Your task to perform on an android device: toggle location history Image 0: 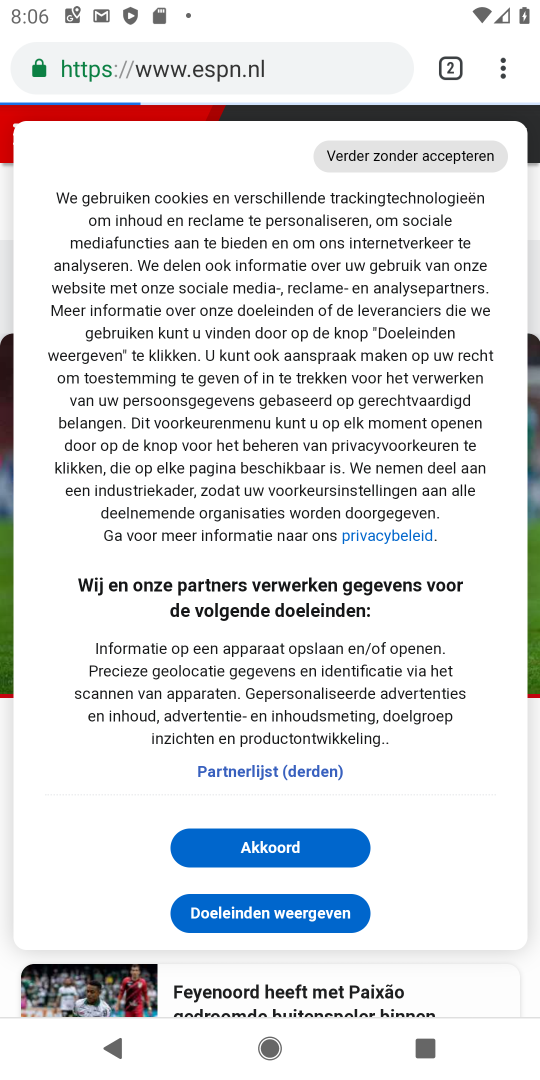
Step 0: press home button
Your task to perform on an android device: toggle location history Image 1: 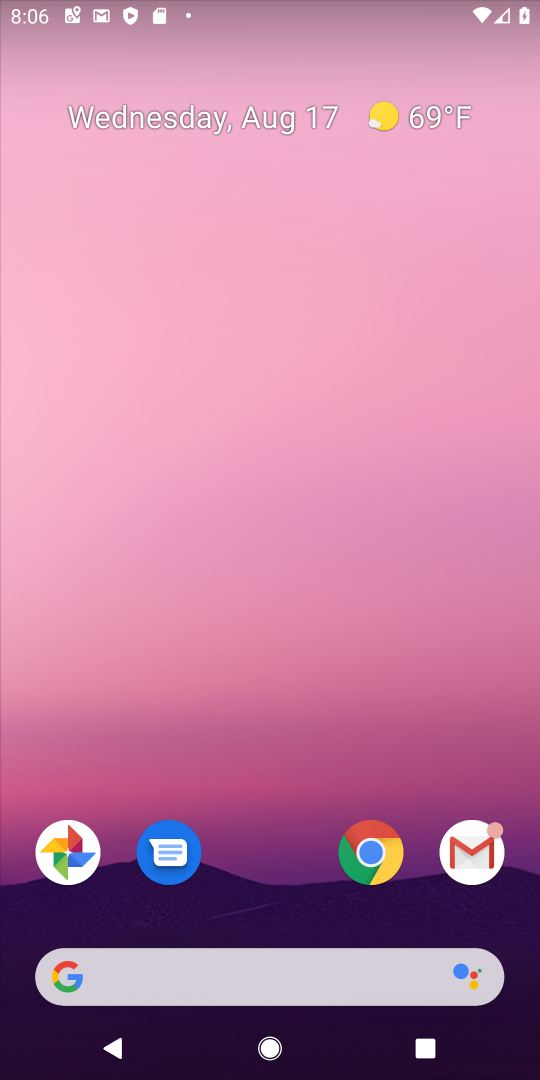
Step 1: drag from (482, 677) to (1, 543)
Your task to perform on an android device: toggle location history Image 2: 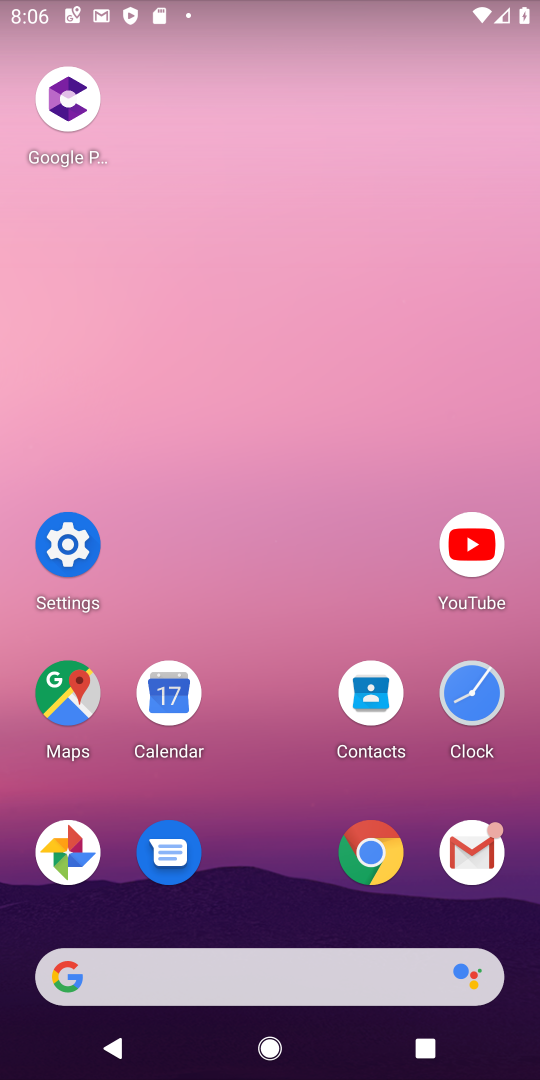
Step 2: click (67, 696)
Your task to perform on an android device: toggle location history Image 3: 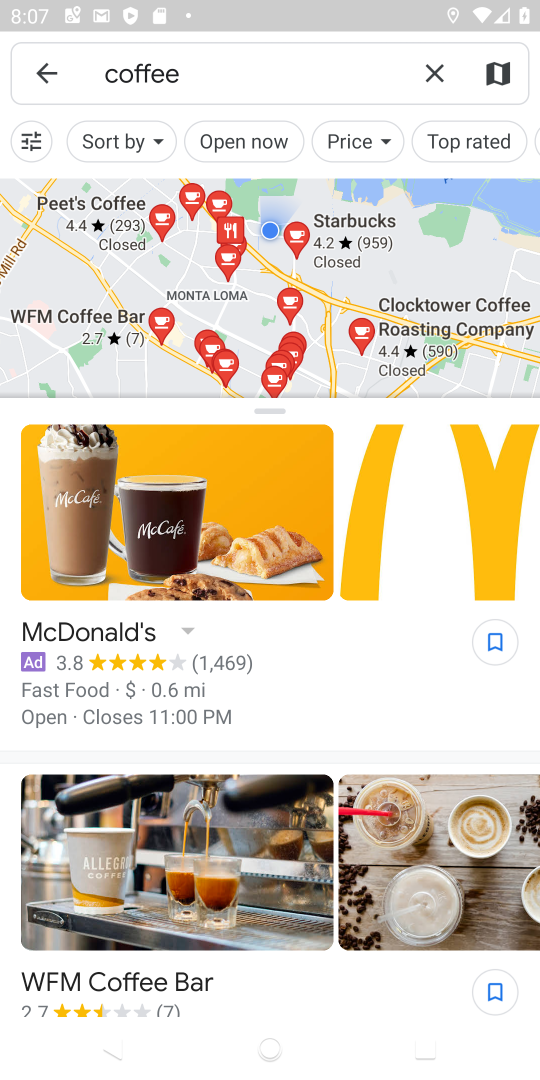
Step 3: click (45, 71)
Your task to perform on an android device: toggle location history Image 4: 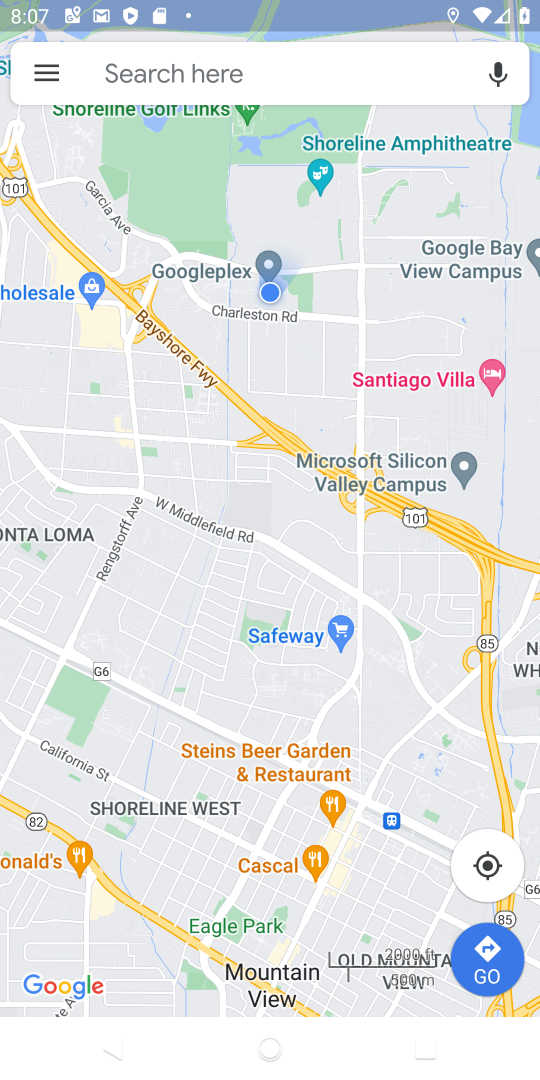
Step 4: click (45, 71)
Your task to perform on an android device: toggle location history Image 5: 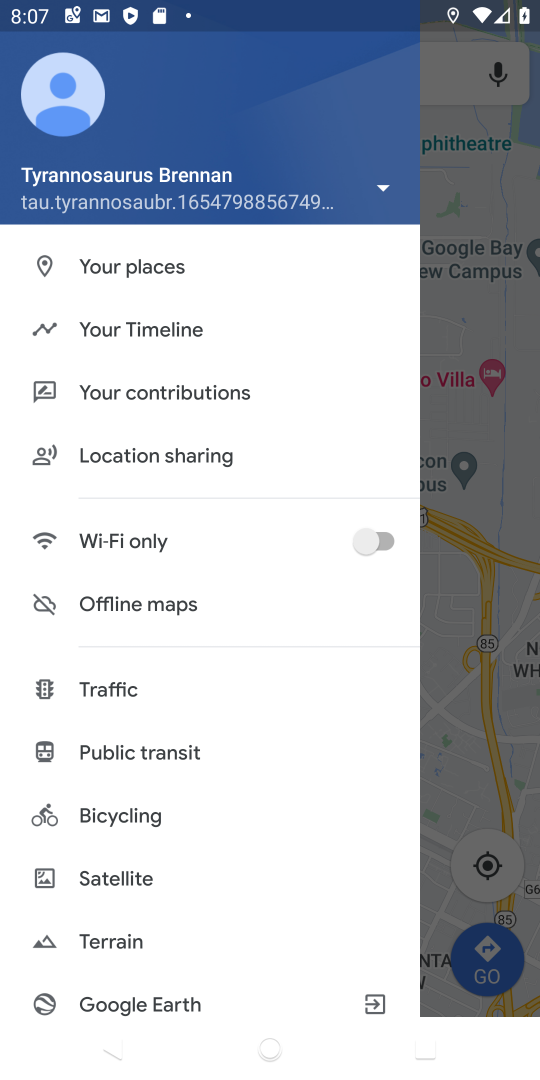
Step 5: click (141, 324)
Your task to perform on an android device: toggle location history Image 6: 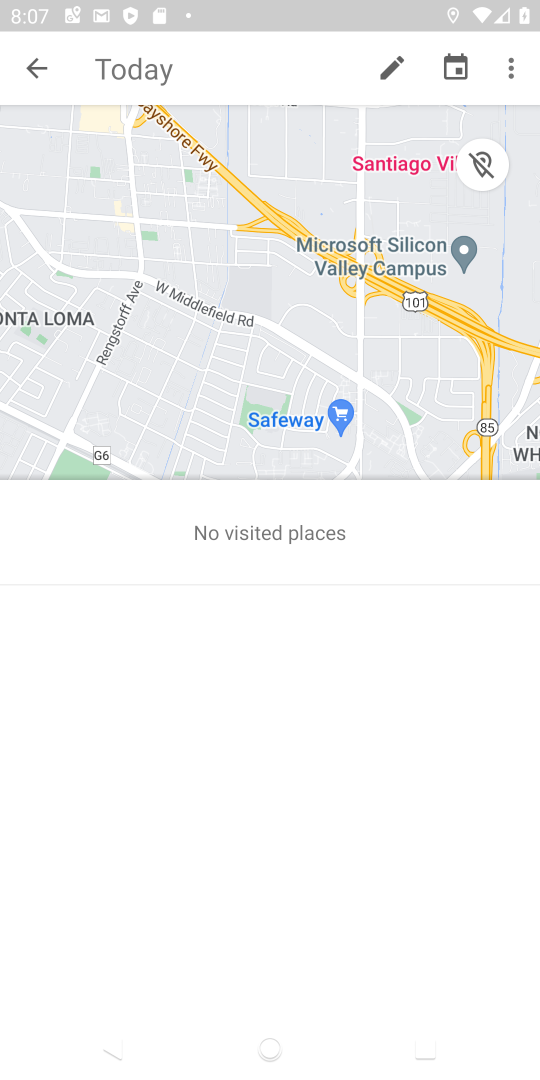
Step 6: click (506, 67)
Your task to perform on an android device: toggle location history Image 7: 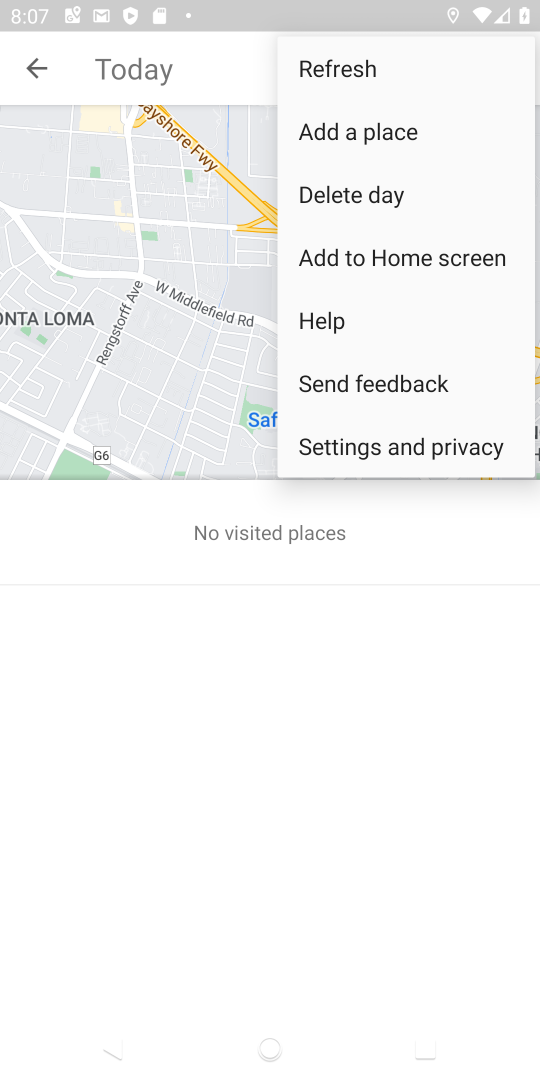
Step 7: click (404, 445)
Your task to perform on an android device: toggle location history Image 8: 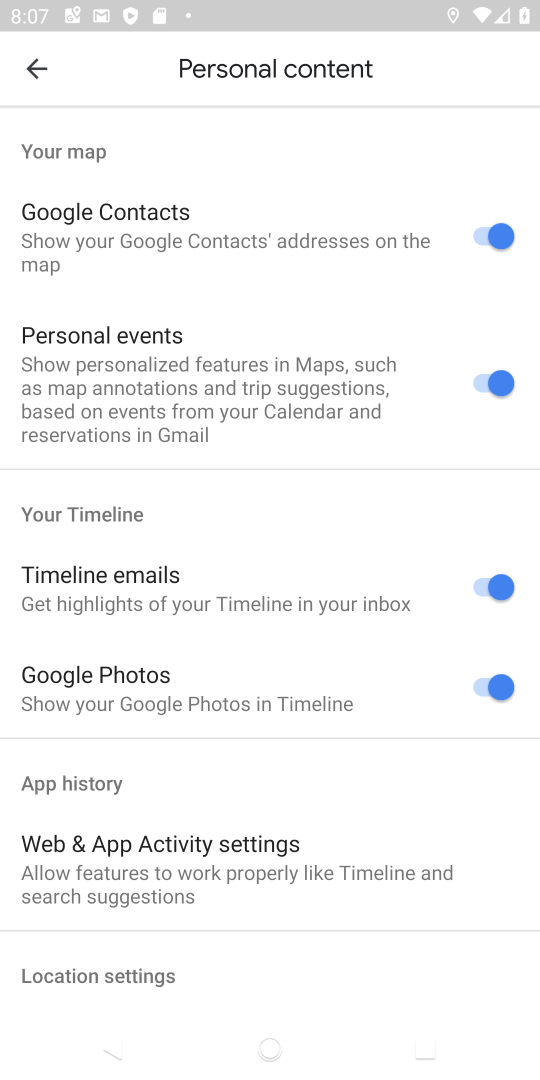
Step 8: drag from (331, 924) to (230, 508)
Your task to perform on an android device: toggle location history Image 9: 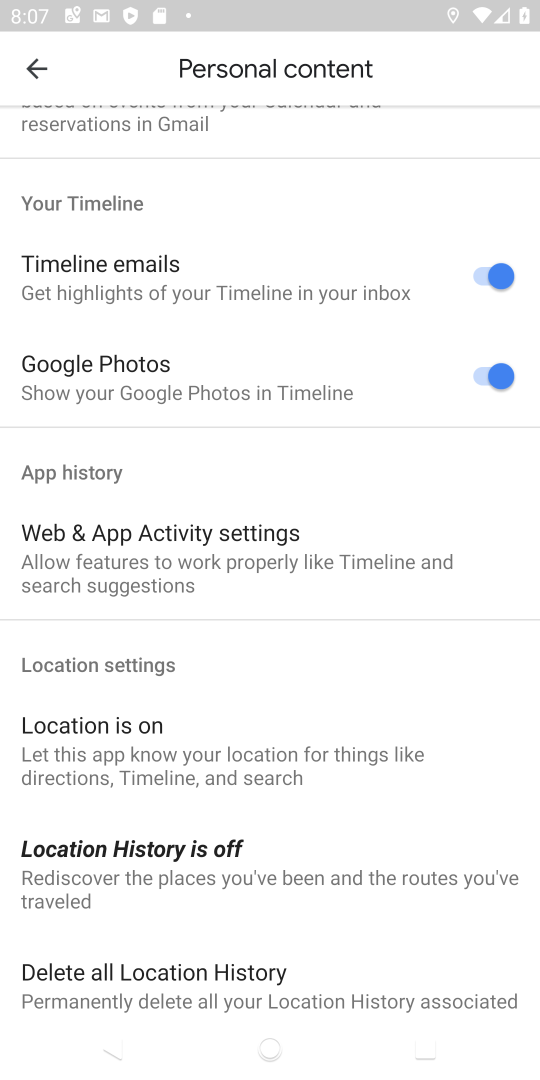
Step 9: drag from (307, 908) to (269, 662)
Your task to perform on an android device: toggle location history Image 10: 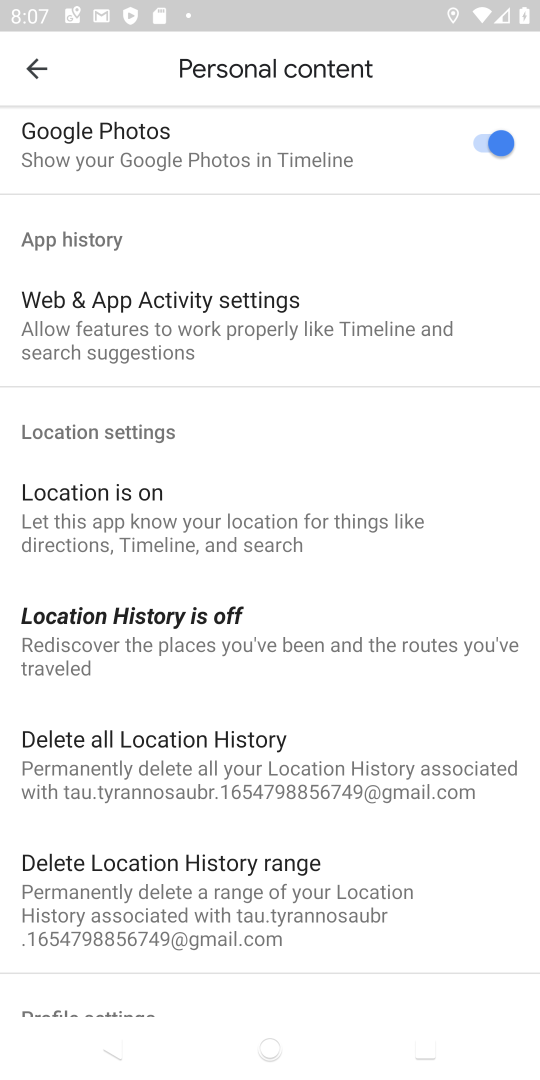
Step 10: click (123, 621)
Your task to perform on an android device: toggle location history Image 11: 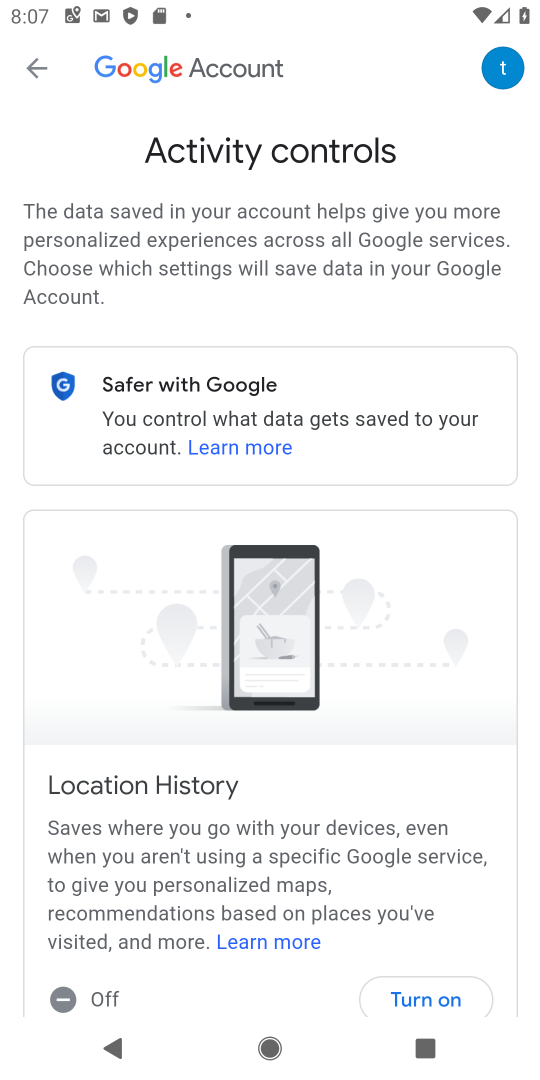
Step 11: drag from (314, 895) to (276, 610)
Your task to perform on an android device: toggle location history Image 12: 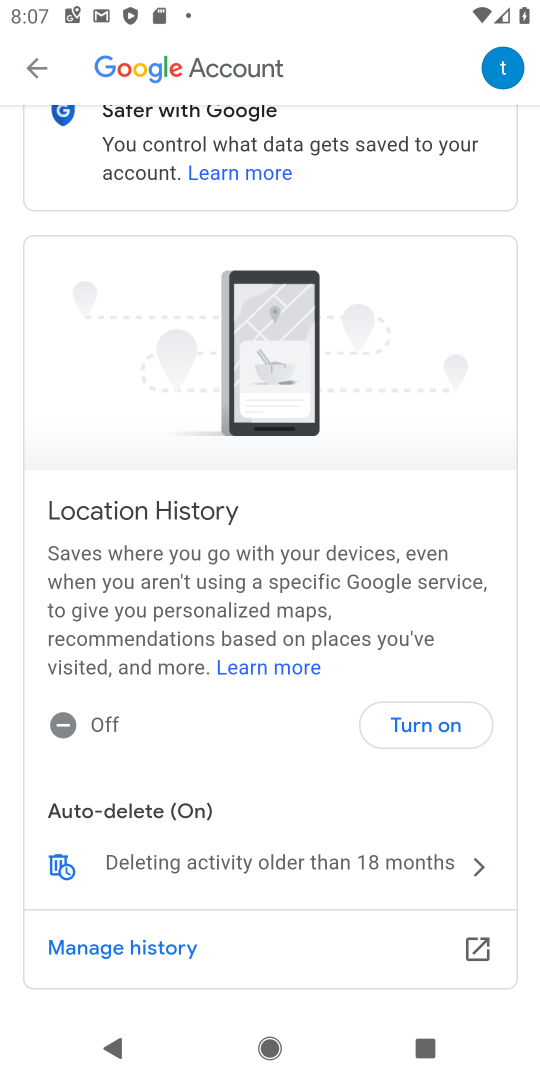
Step 12: click (426, 720)
Your task to perform on an android device: toggle location history Image 13: 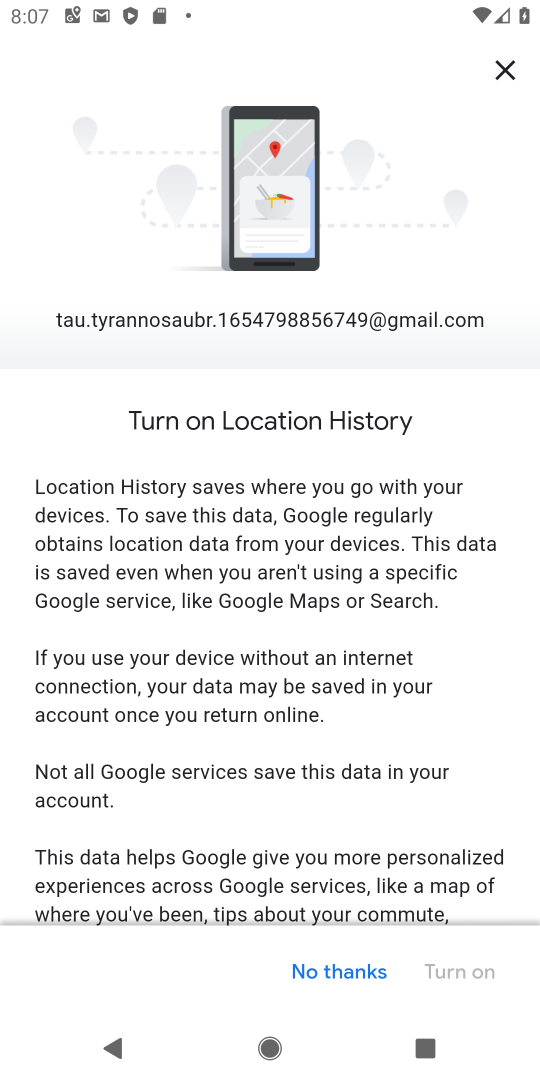
Step 13: drag from (372, 827) to (306, 464)
Your task to perform on an android device: toggle location history Image 14: 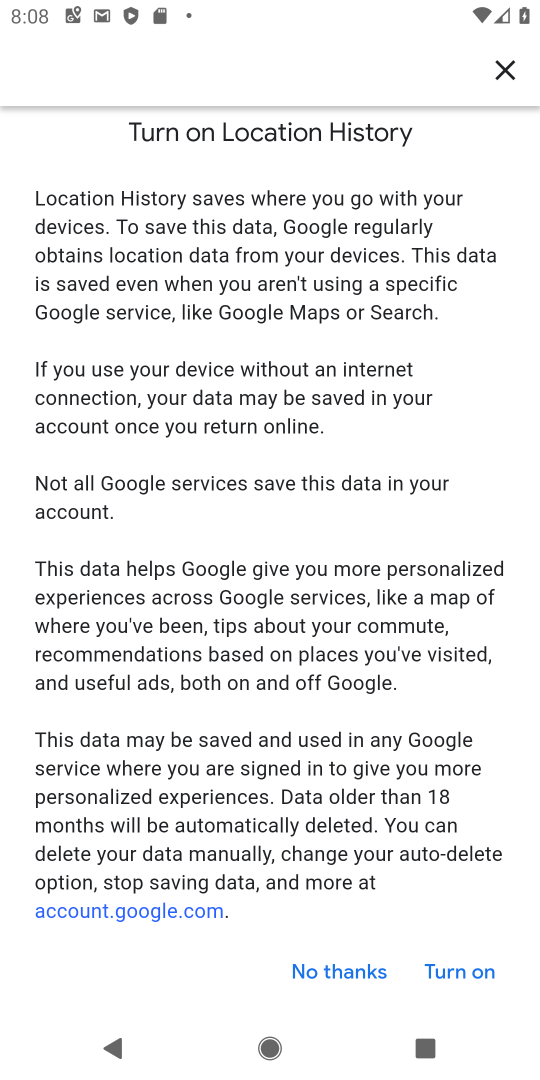
Step 14: click (464, 967)
Your task to perform on an android device: toggle location history Image 15: 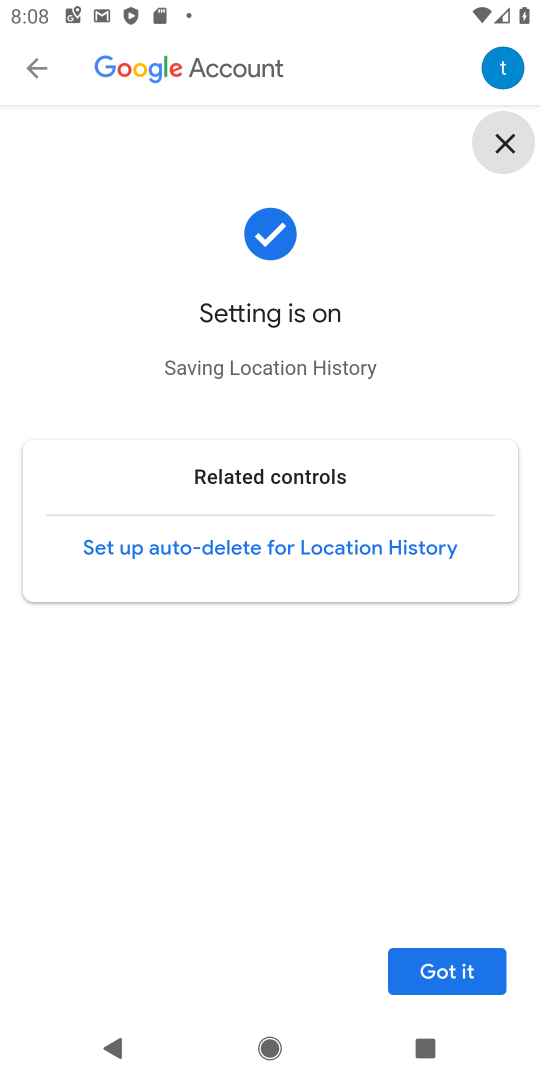
Step 15: click (464, 967)
Your task to perform on an android device: toggle location history Image 16: 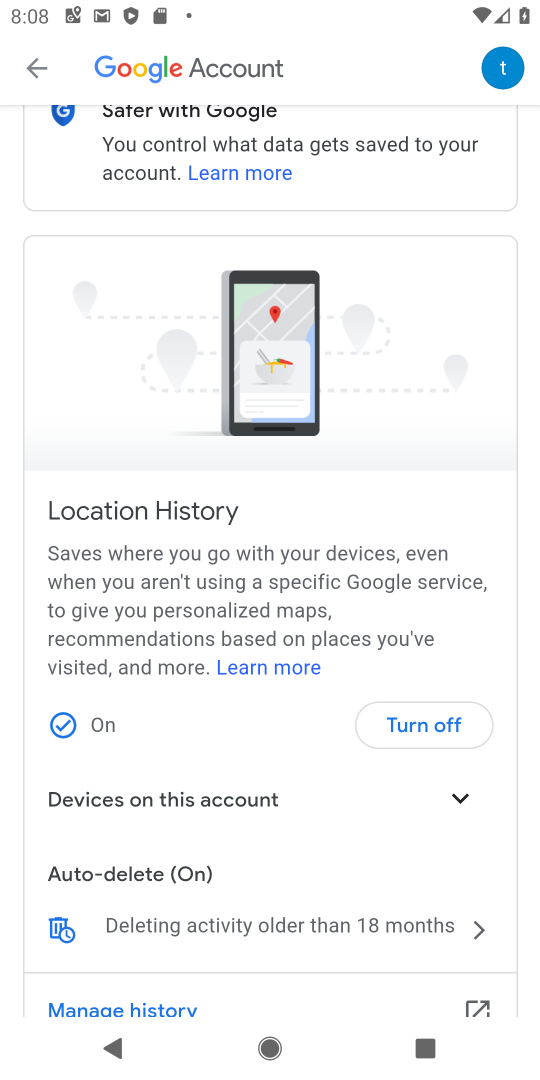
Step 16: task complete